Your task to perform on an android device: create a new album in the google photos Image 0: 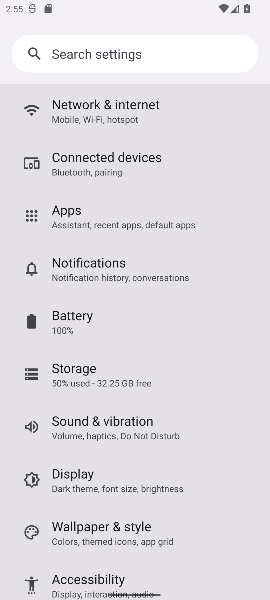
Step 0: press home button
Your task to perform on an android device: create a new album in the google photos Image 1: 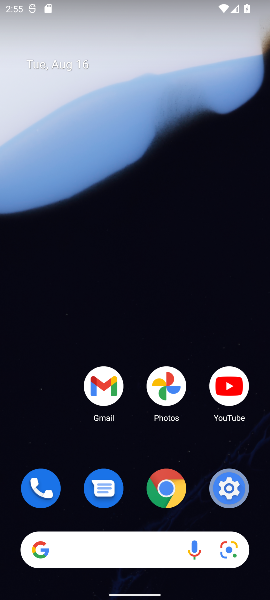
Step 1: task complete